Your task to perform on an android device: turn on sleep mode Image 0: 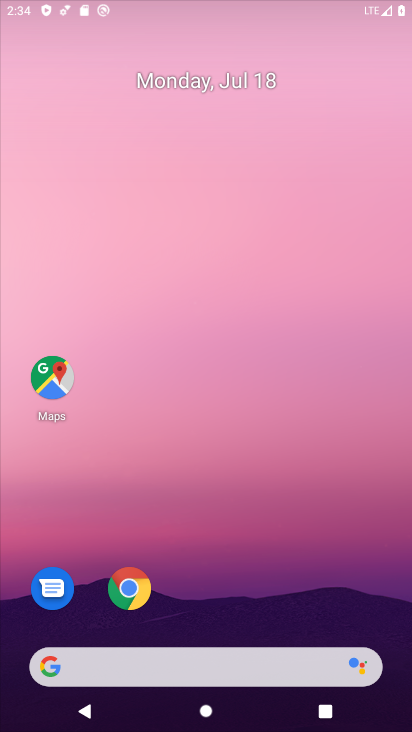
Step 0: click (126, 583)
Your task to perform on an android device: turn on sleep mode Image 1: 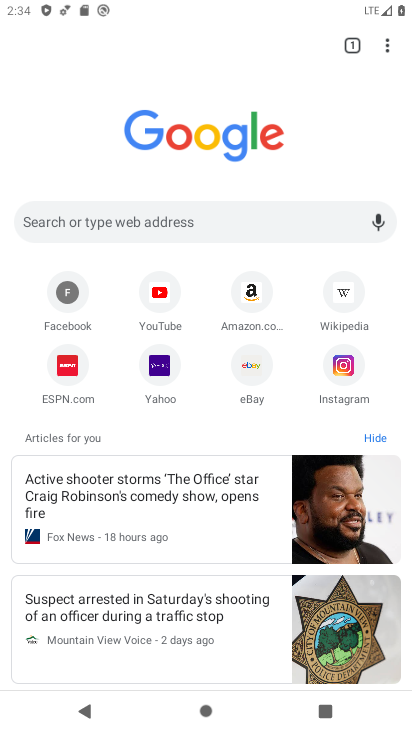
Step 1: press back button
Your task to perform on an android device: turn on sleep mode Image 2: 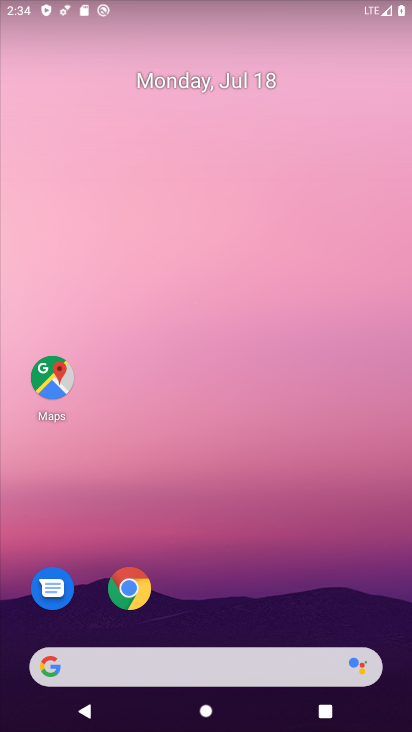
Step 2: drag from (261, 620) to (247, 10)
Your task to perform on an android device: turn on sleep mode Image 3: 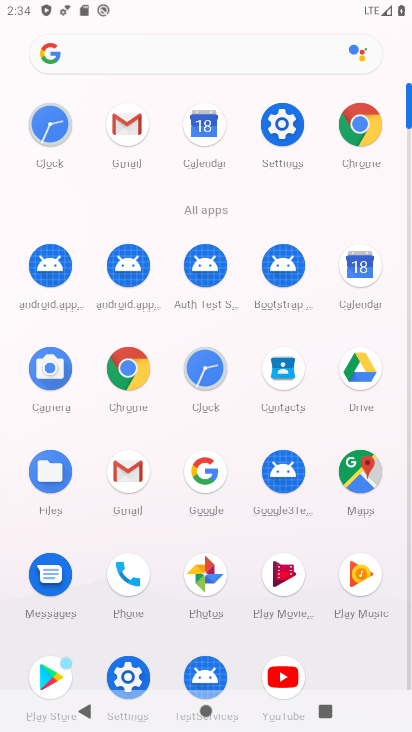
Step 3: click (280, 118)
Your task to perform on an android device: turn on sleep mode Image 4: 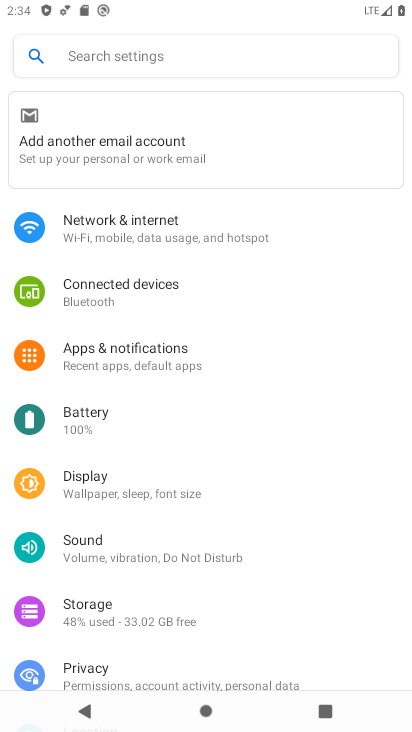
Step 4: click (196, 55)
Your task to perform on an android device: turn on sleep mode Image 5: 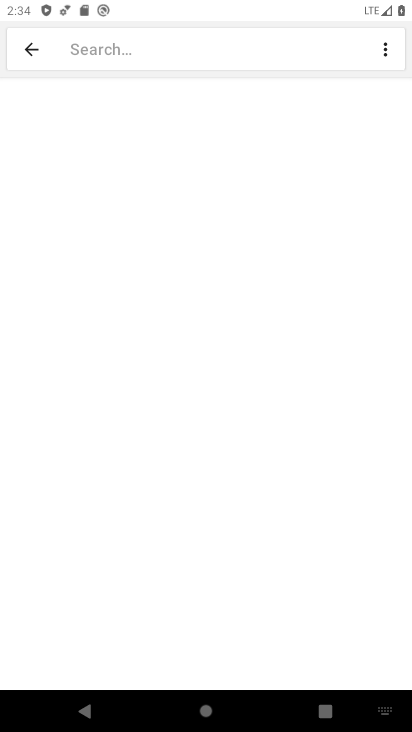
Step 5: type "sleep mode"
Your task to perform on an android device: turn on sleep mode Image 6: 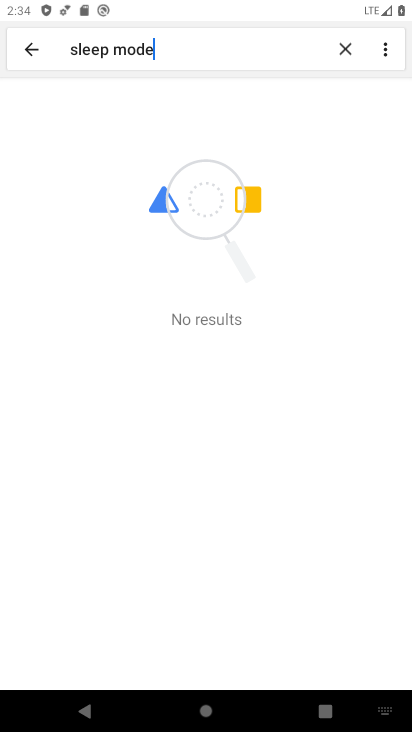
Step 6: task complete